Your task to perform on an android device: change the clock display to analog Image 0: 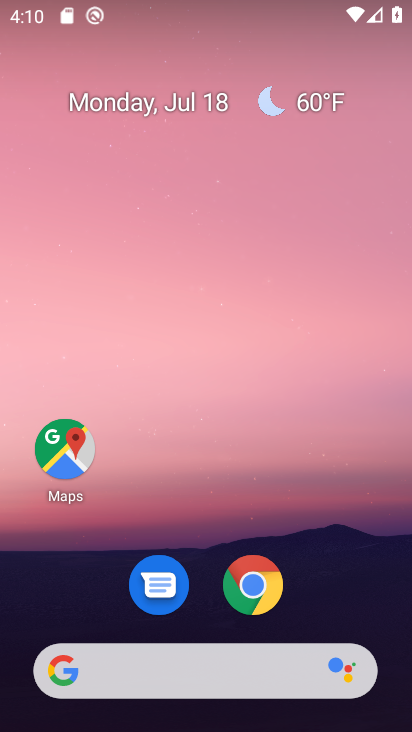
Step 0: drag from (332, 563) to (324, 38)
Your task to perform on an android device: change the clock display to analog Image 1: 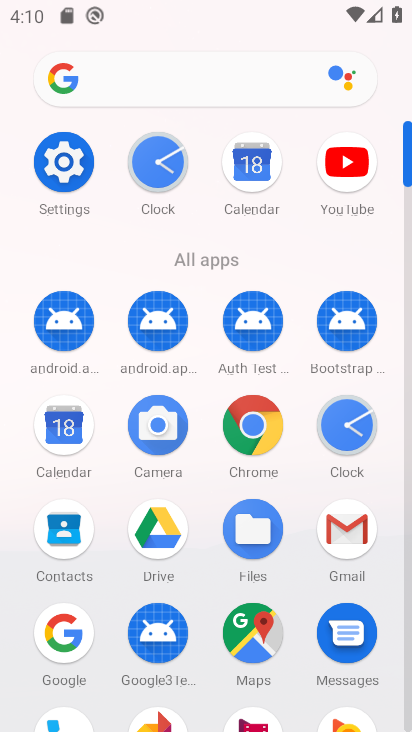
Step 1: click (155, 157)
Your task to perform on an android device: change the clock display to analog Image 2: 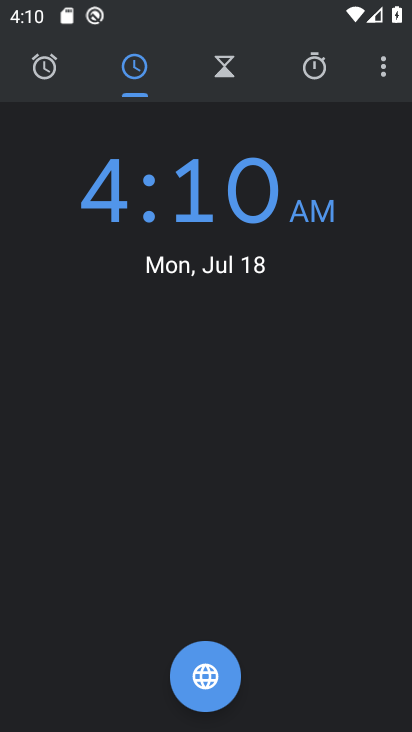
Step 2: click (385, 83)
Your task to perform on an android device: change the clock display to analog Image 3: 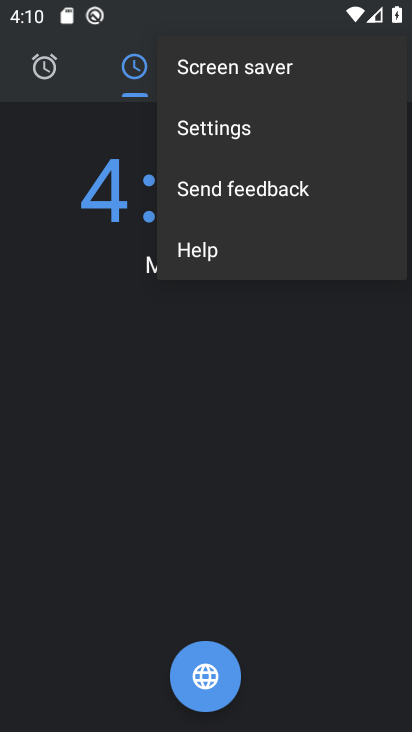
Step 3: click (272, 132)
Your task to perform on an android device: change the clock display to analog Image 4: 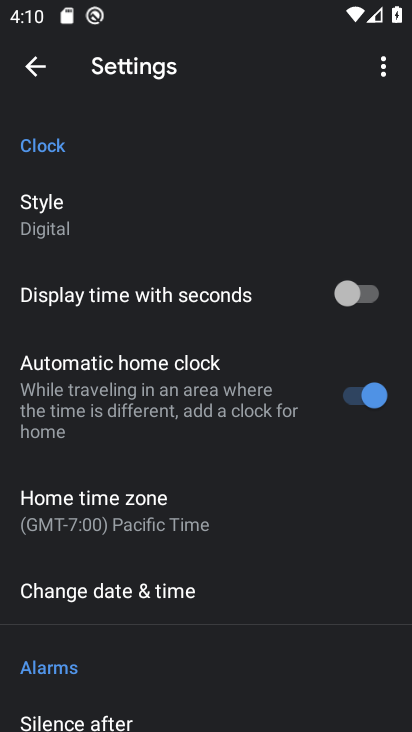
Step 4: click (60, 227)
Your task to perform on an android device: change the clock display to analog Image 5: 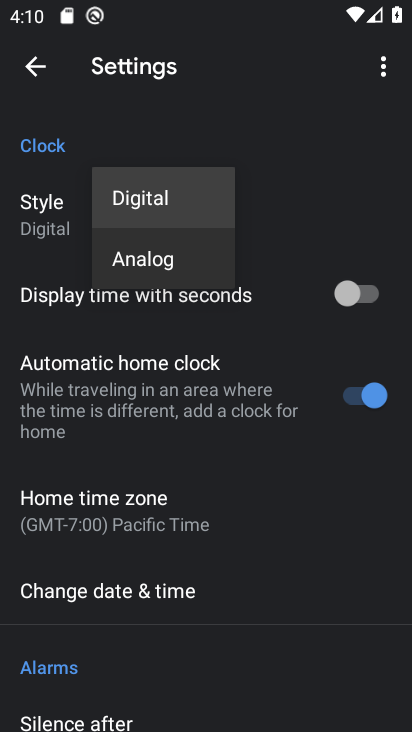
Step 5: click (123, 256)
Your task to perform on an android device: change the clock display to analog Image 6: 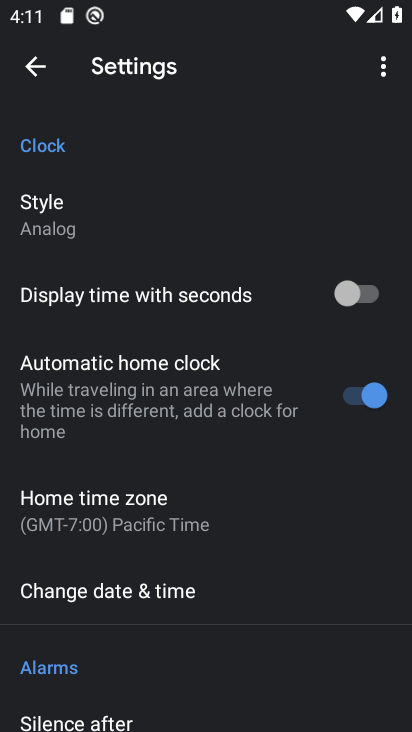
Step 6: click (35, 73)
Your task to perform on an android device: change the clock display to analog Image 7: 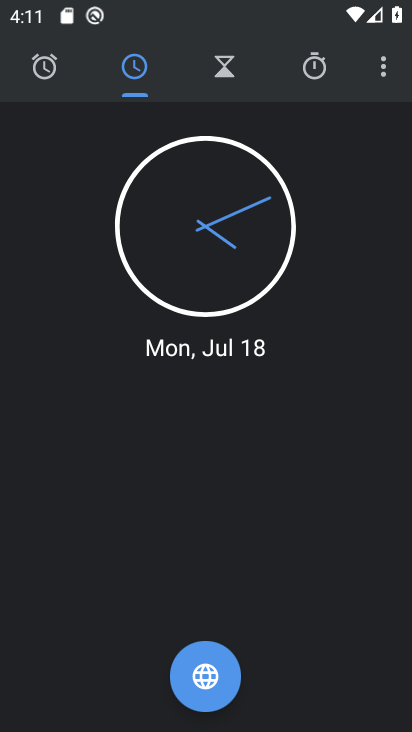
Step 7: task complete